Your task to perform on an android device: turn on bluetooth scan Image 0: 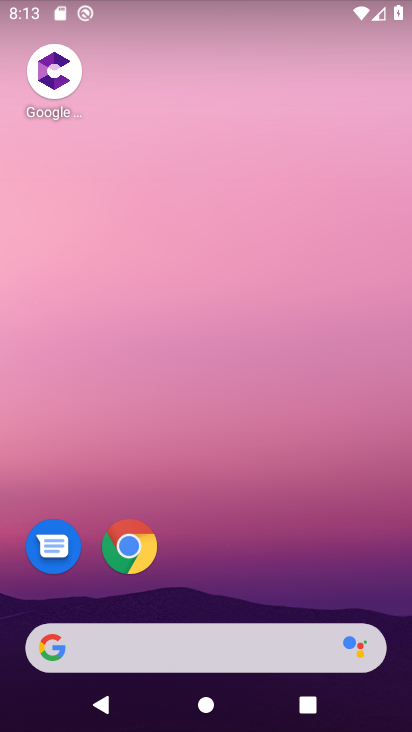
Step 0: drag from (249, 571) to (186, 73)
Your task to perform on an android device: turn on bluetooth scan Image 1: 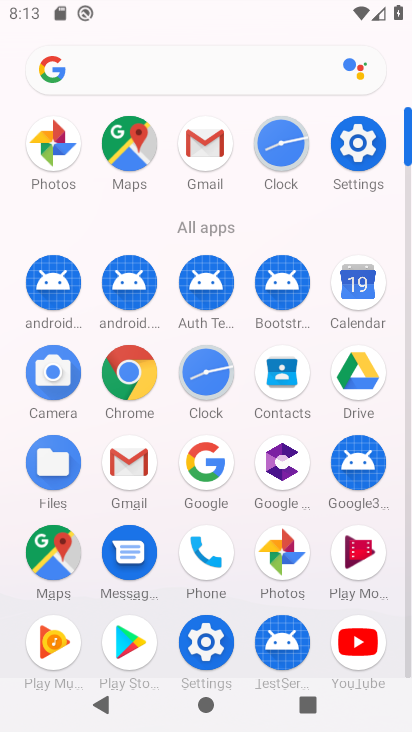
Step 1: click (362, 171)
Your task to perform on an android device: turn on bluetooth scan Image 2: 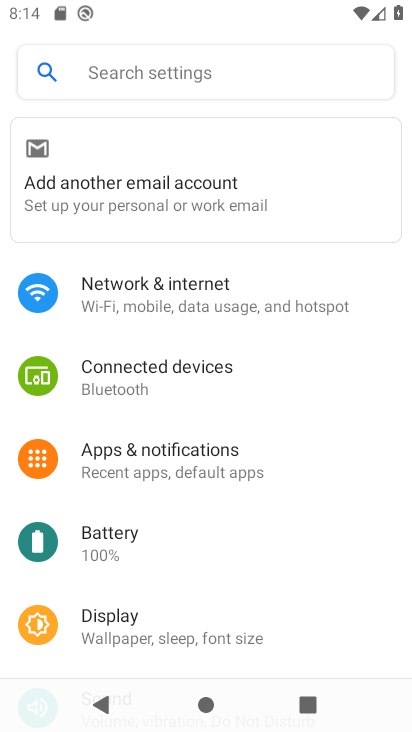
Step 2: drag from (295, 542) to (289, 134)
Your task to perform on an android device: turn on bluetooth scan Image 3: 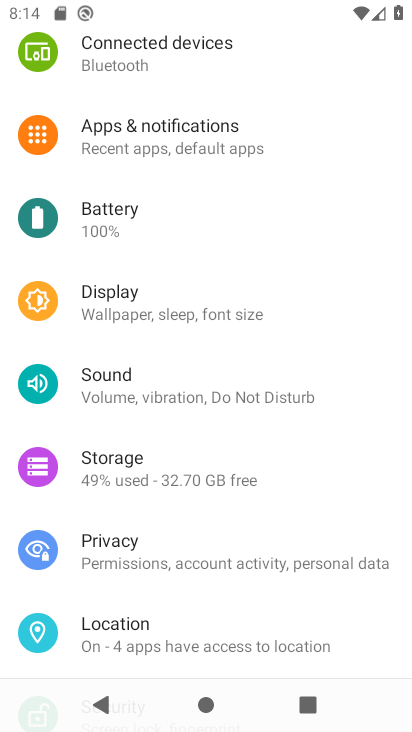
Step 3: click (116, 637)
Your task to perform on an android device: turn on bluetooth scan Image 4: 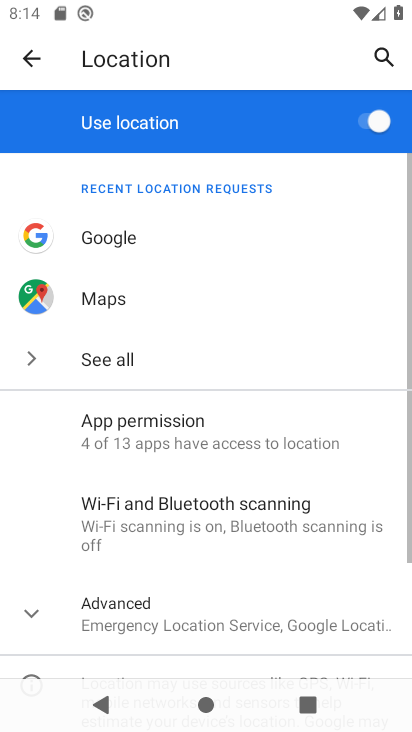
Step 4: click (170, 511)
Your task to perform on an android device: turn on bluetooth scan Image 5: 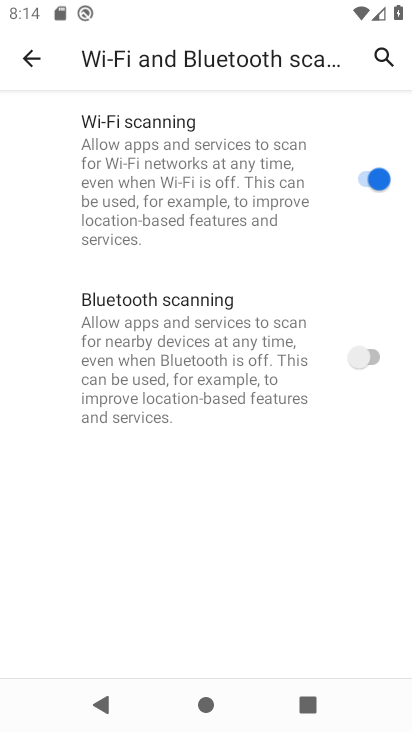
Step 5: click (371, 361)
Your task to perform on an android device: turn on bluetooth scan Image 6: 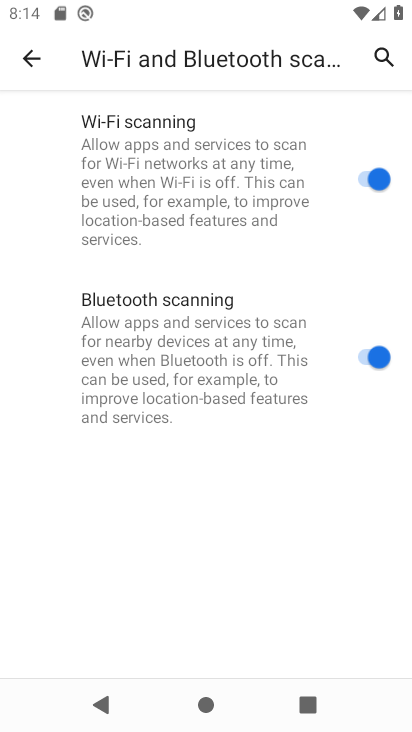
Step 6: task complete